Your task to perform on an android device: turn on airplane mode Image 0: 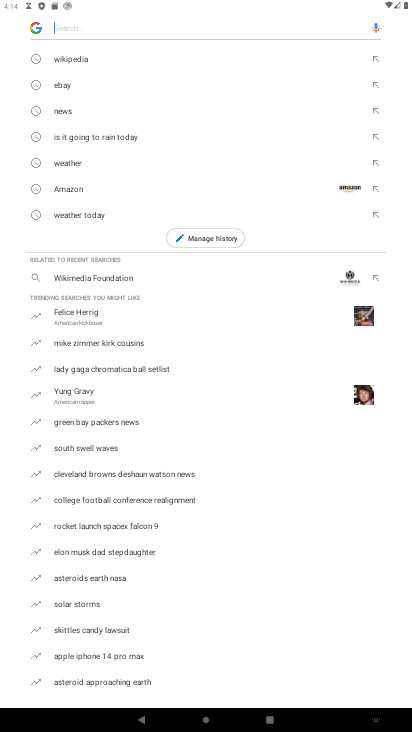
Step 0: press home button
Your task to perform on an android device: turn on airplane mode Image 1: 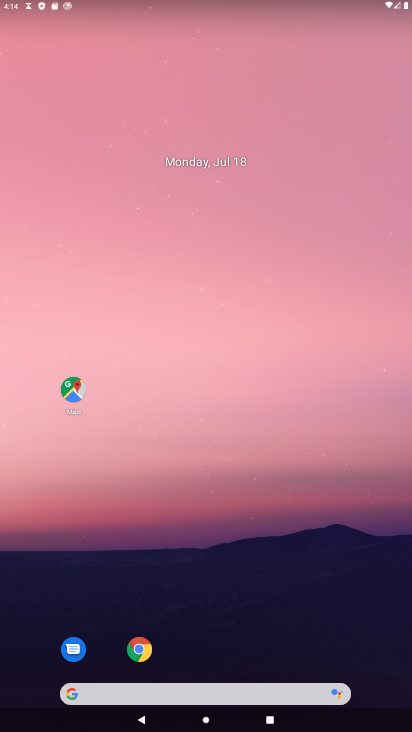
Step 1: drag from (191, 1) to (195, 517)
Your task to perform on an android device: turn on airplane mode Image 2: 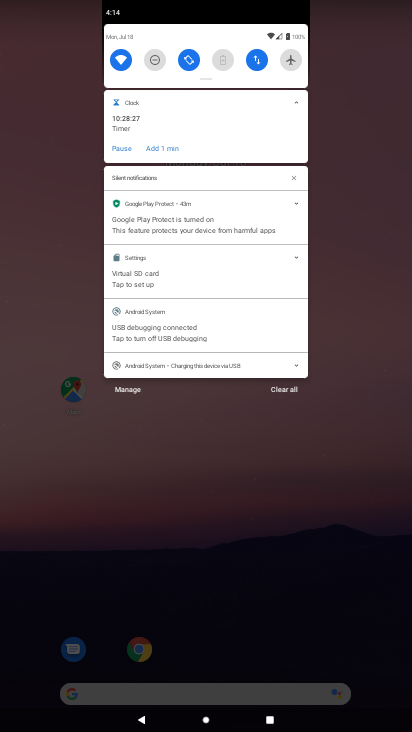
Step 2: click (294, 54)
Your task to perform on an android device: turn on airplane mode Image 3: 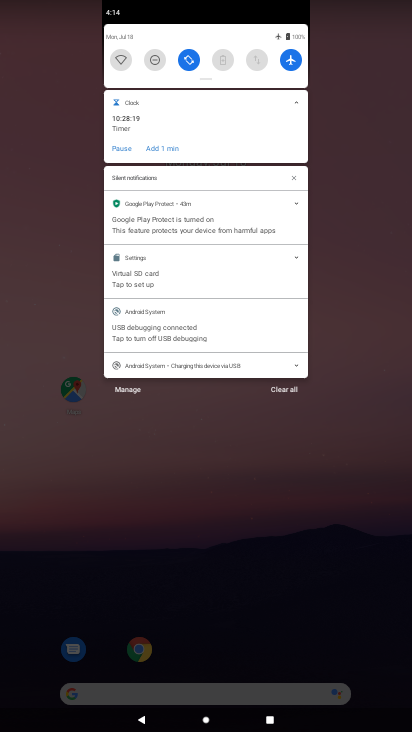
Step 3: task complete